Your task to perform on an android device: Open battery settings Image 0: 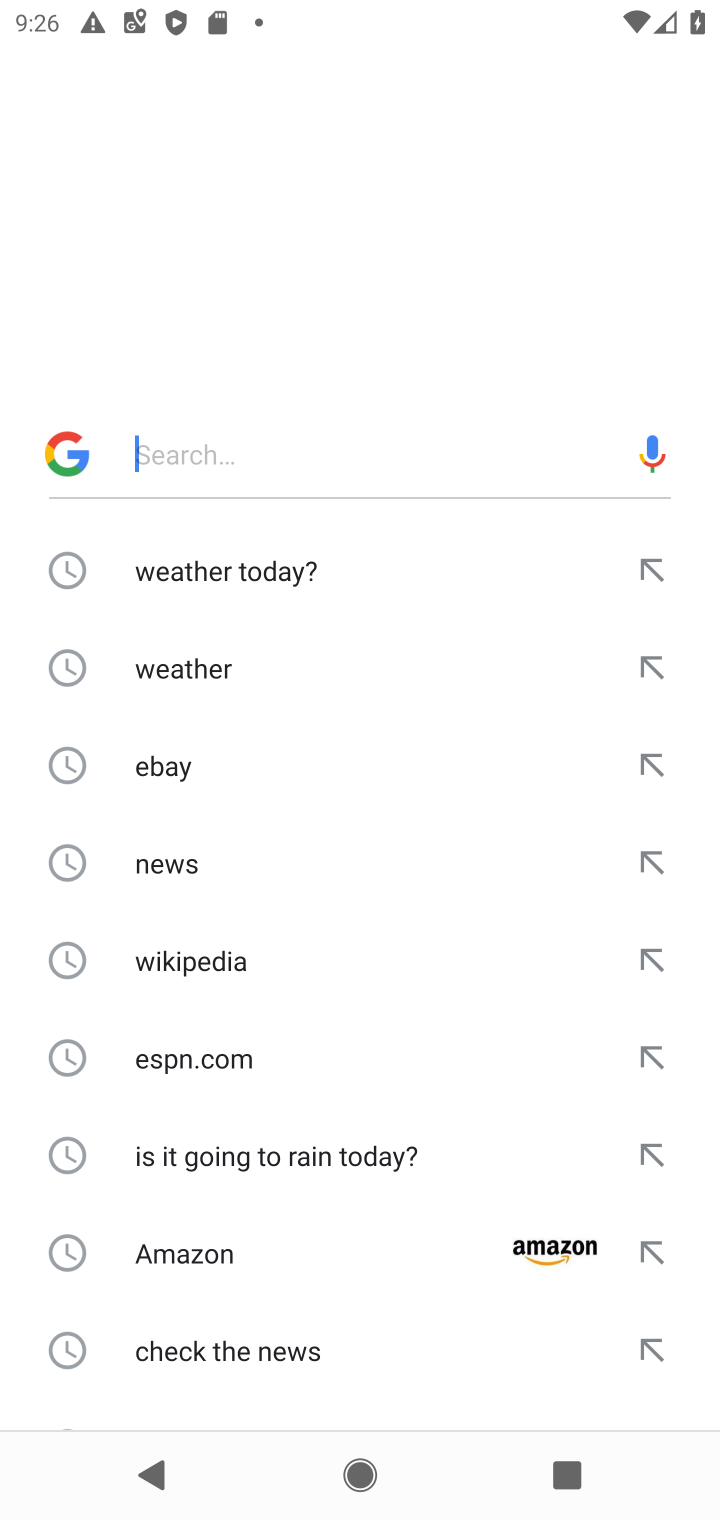
Step 0: press home button
Your task to perform on an android device: Open battery settings Image 1: 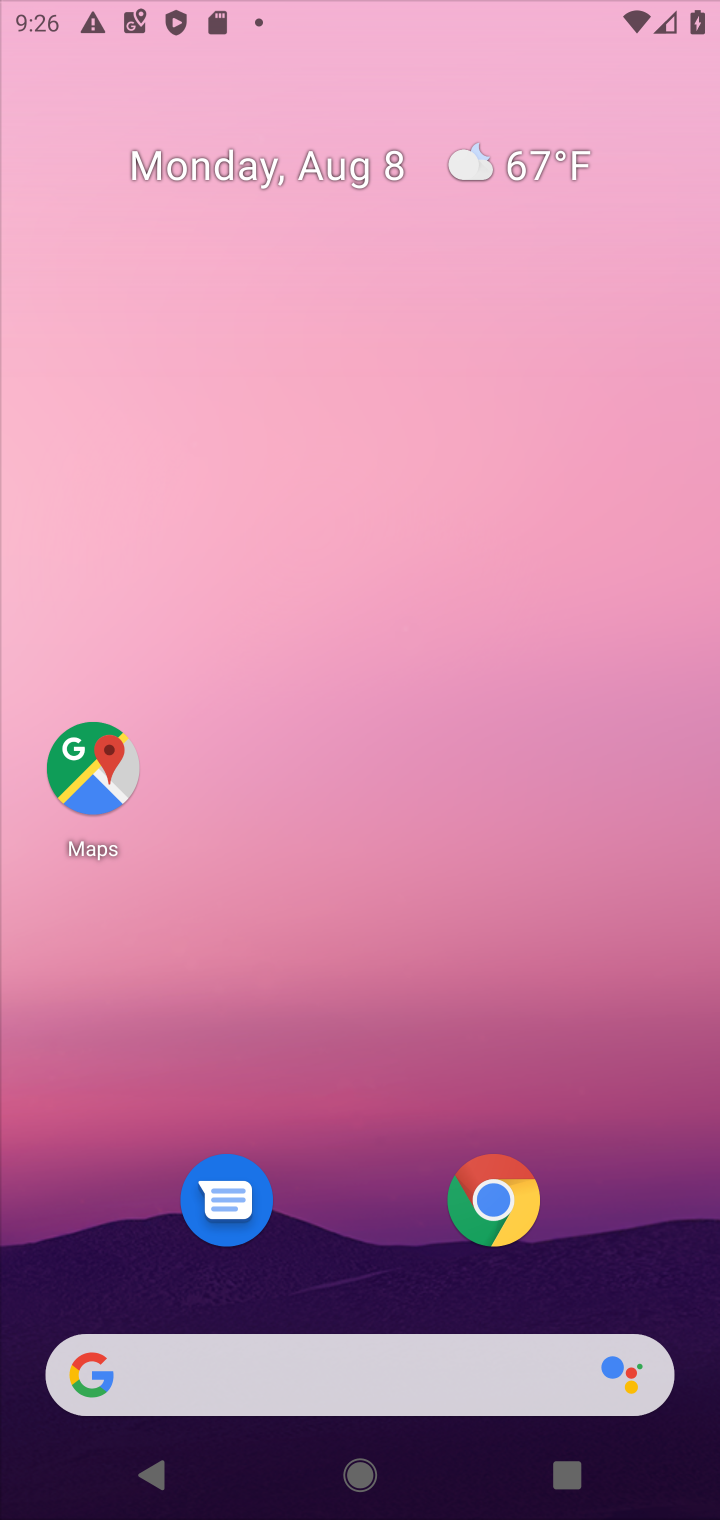
Step 1: press home button
Your task to perform on an android device: Open battery settings Image 2: 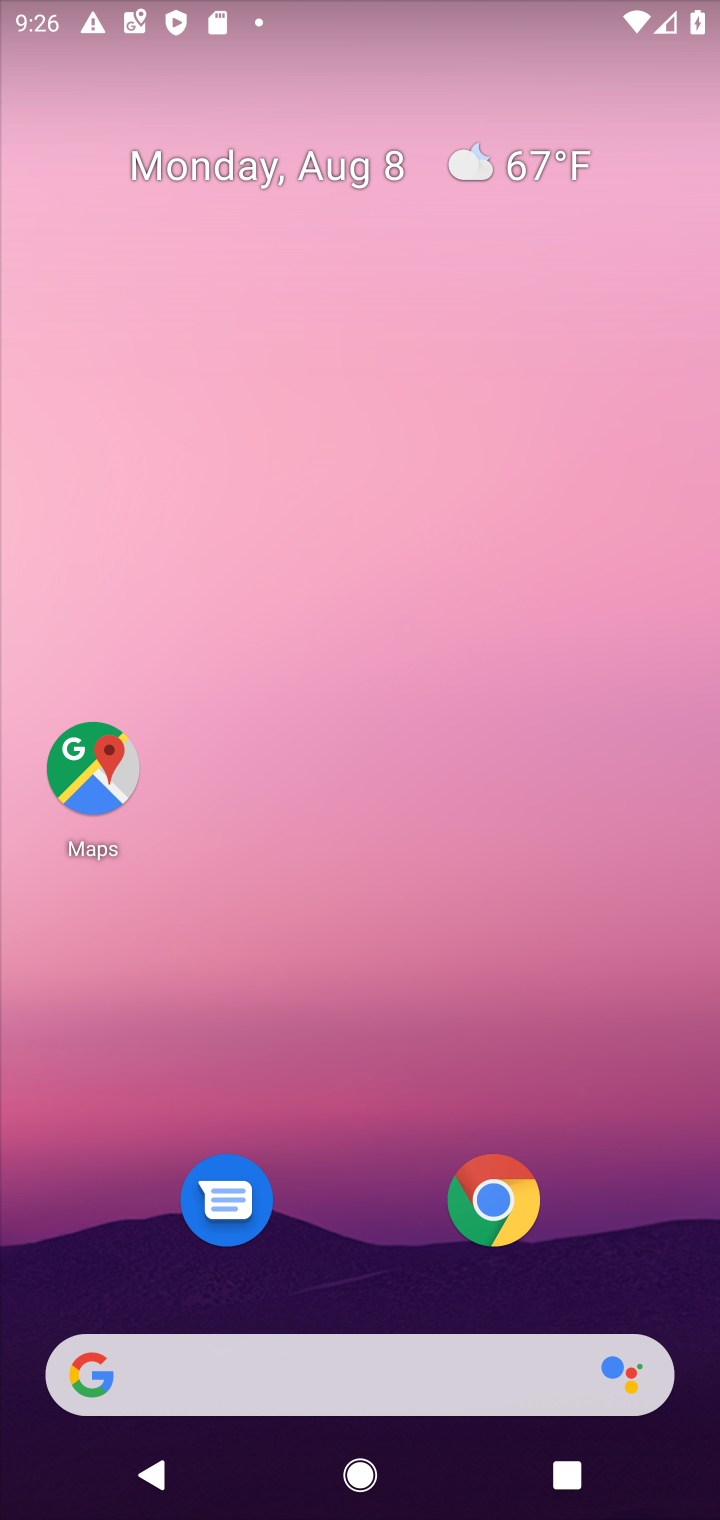
Step 2: drag from (396, 1183) to (624, 61)
Your task to perform on an android device: Open battery settings Image 3: 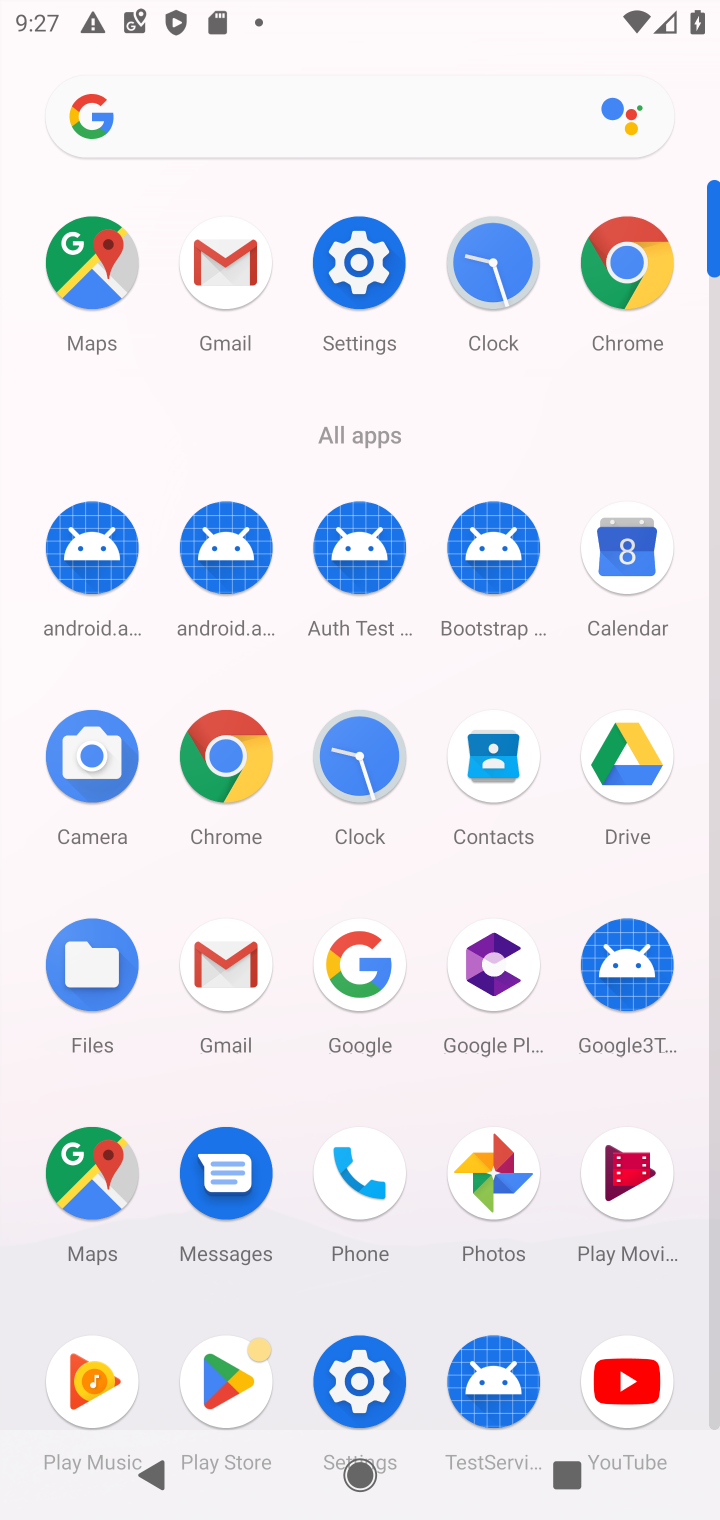
Step 3: click (366, 292)
Your task to perform on an android device: Open battery settings Image 4: 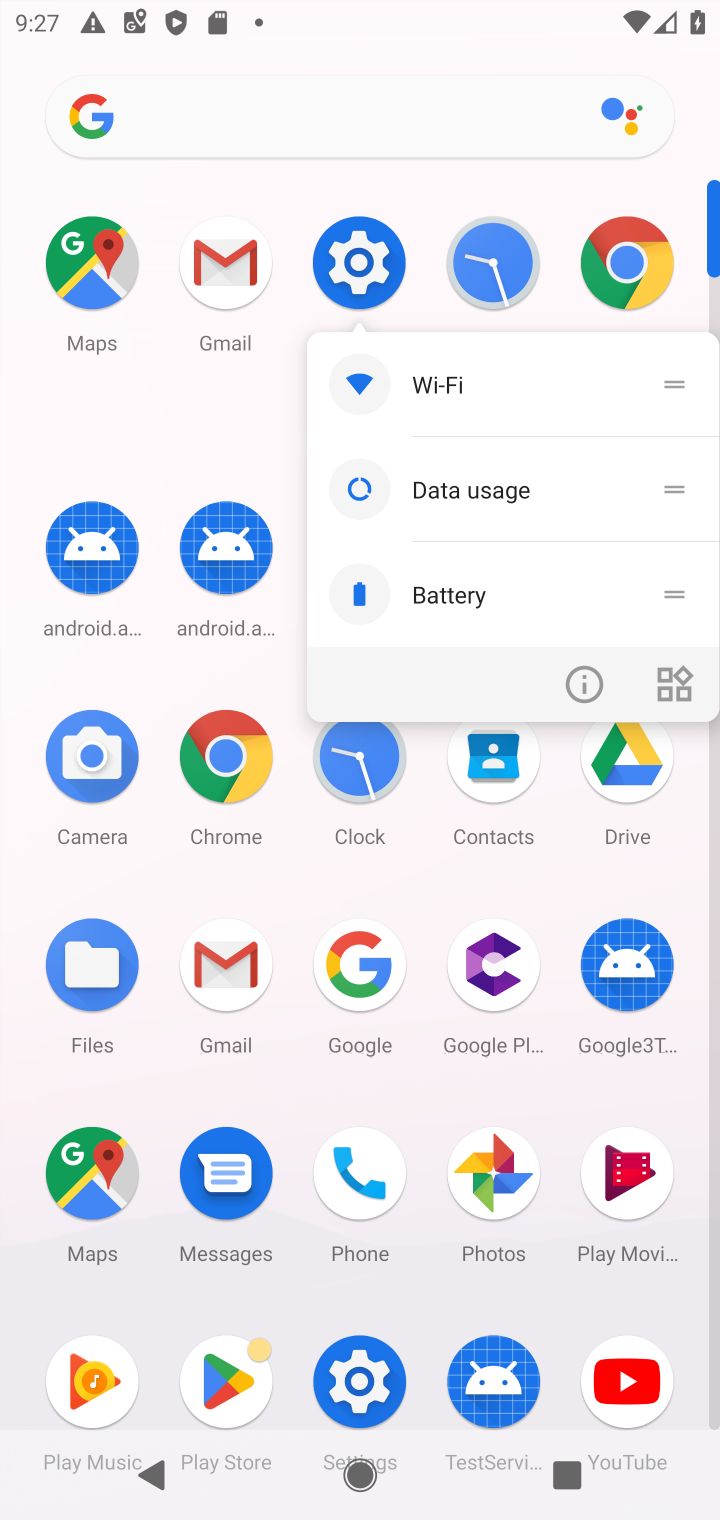
Step 4: click (350, 248)
Your task to perform on an android device: Open battery settings Image 5: 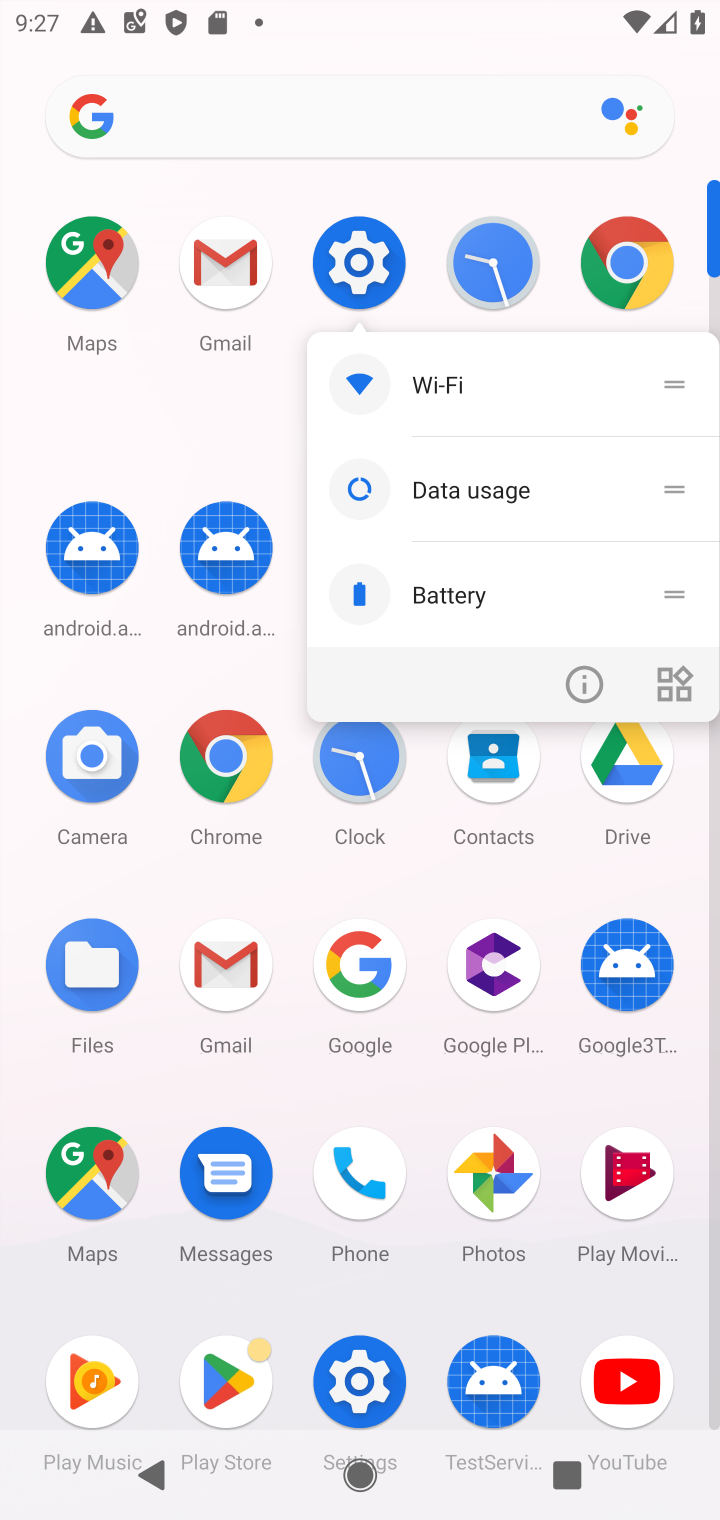
Step 5: click (343, 241)
Your task to perform on an android device: Open battery settings Image 6: 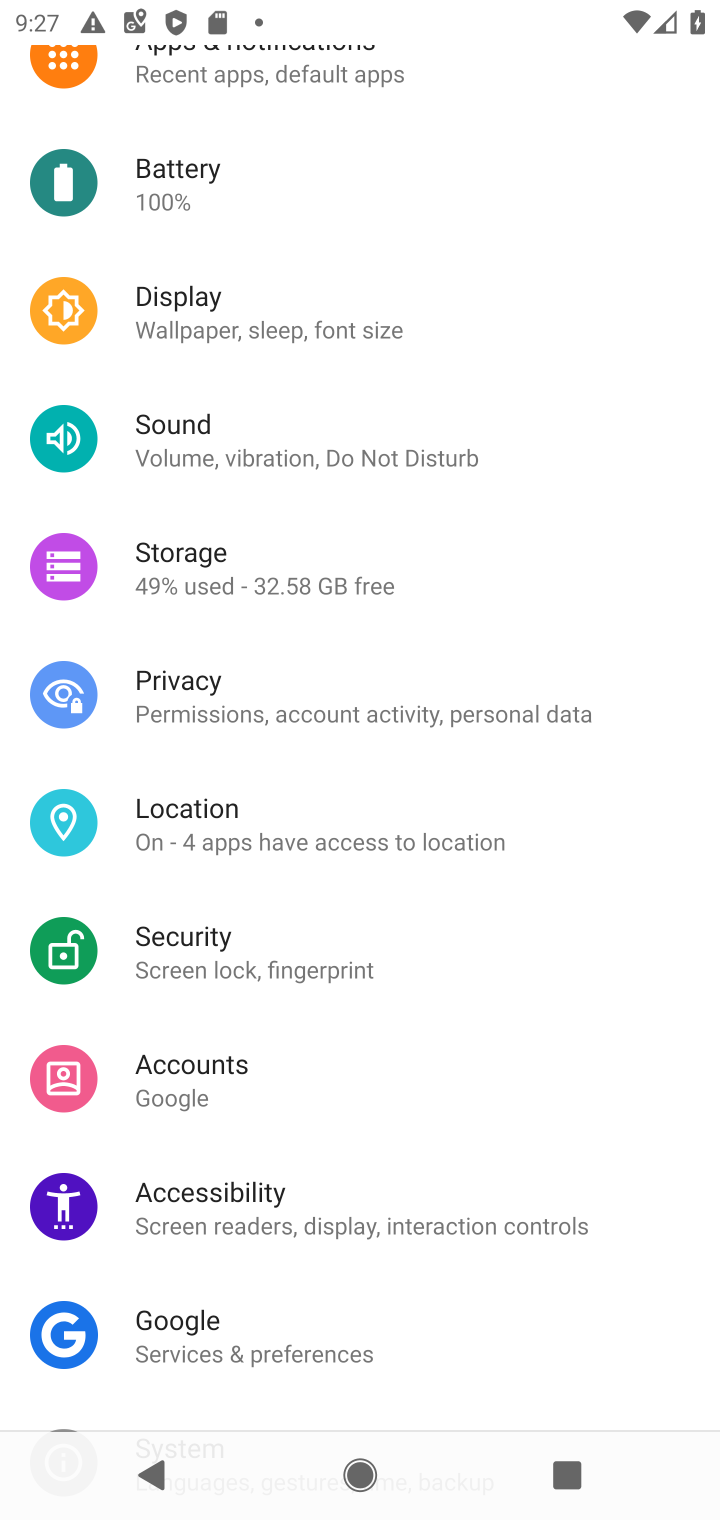
Step 6: click (207, 178)
Your task to perform on an android device: Open battery settings Image 7: 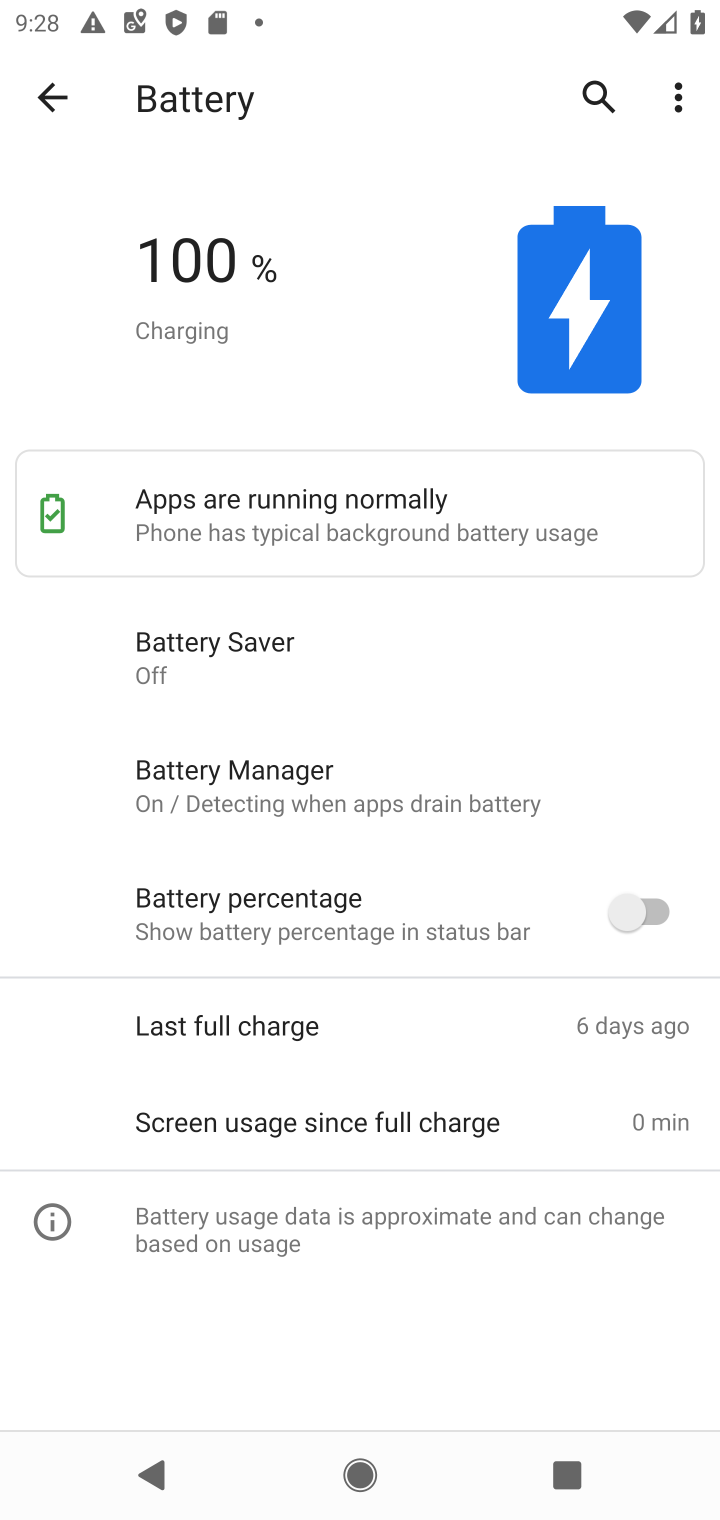
Step 7: task complete